Your task to perform on an android device: Open calendar and show me the fourth week of next month Image 0: 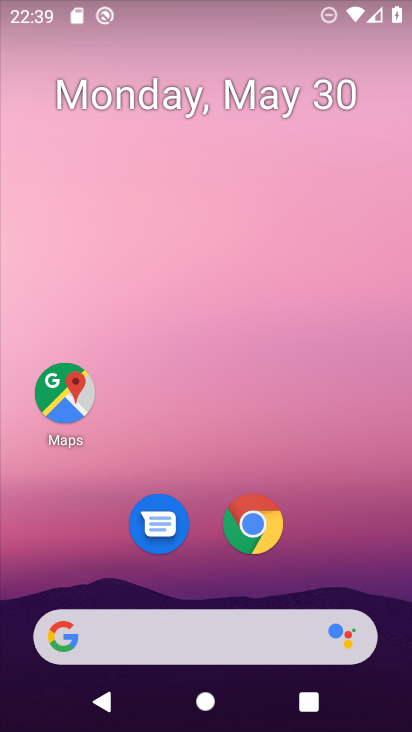
Step 0: drag from (215, 472) to (198, 25)
Your task to perform on an android device: Open calendar and show me the fourth week of next month Image 1: 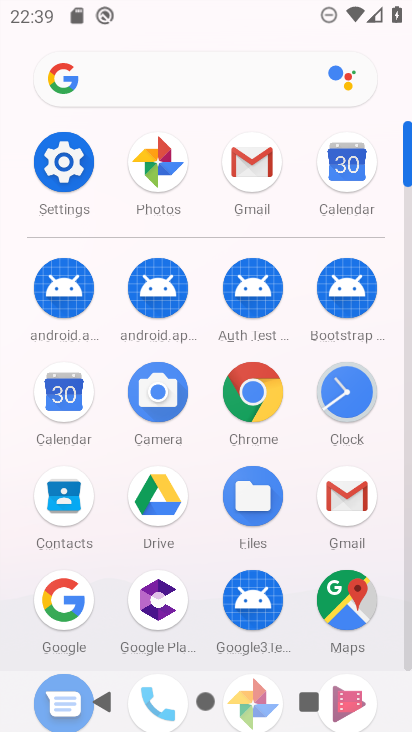
Step 1: click (73, 388)
Your task to perform on an android device: Open calendar and show me the fourth week of next month Image 2: 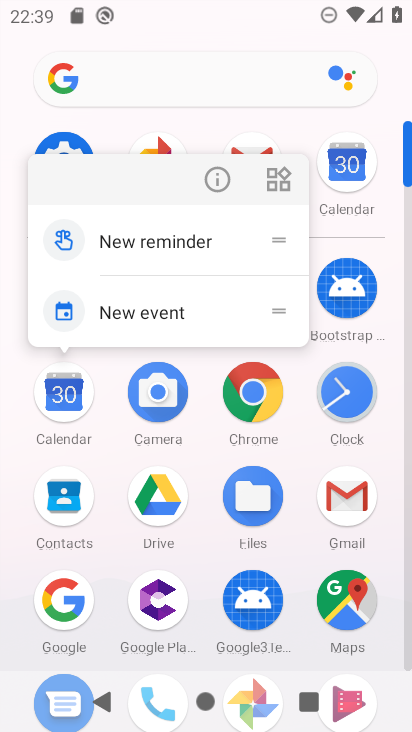
Step 2: click (73, 386)
Your task to perform on an android device: Open calendar and show me the fourth week of next month Image 3: 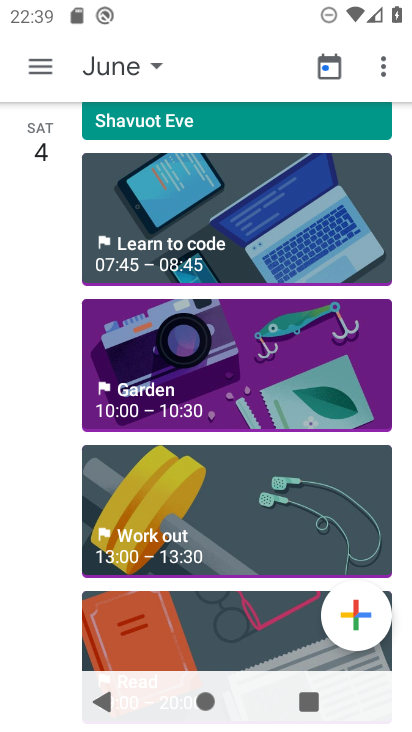
Step 3: click (31, 62)
Your task to perform on an android device: Open calendar and show me the fourth week of next month Image 4: 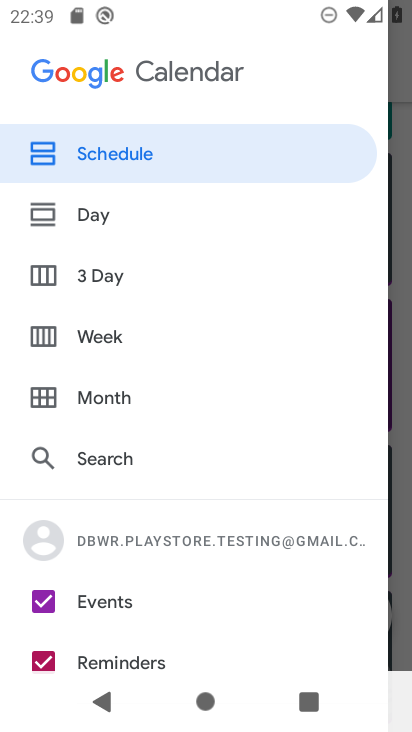
Step 4: click (70, 330)
Your task to perform on an android device: Open calendar and show me the fourth week of next month Image 5: 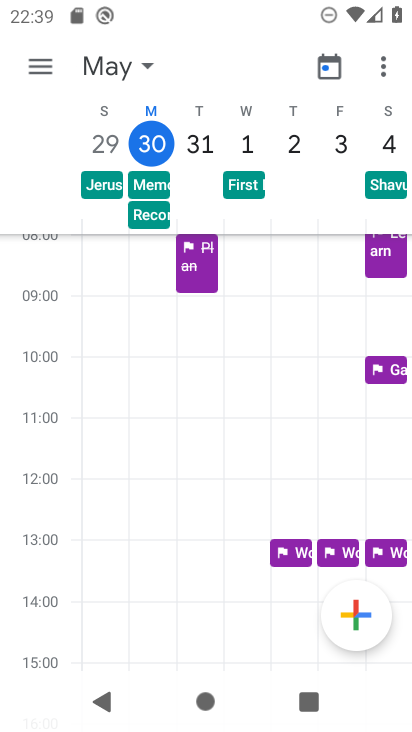
Step 5: task complete